Your task to perform on an android device: What is the recent news? Image 0: 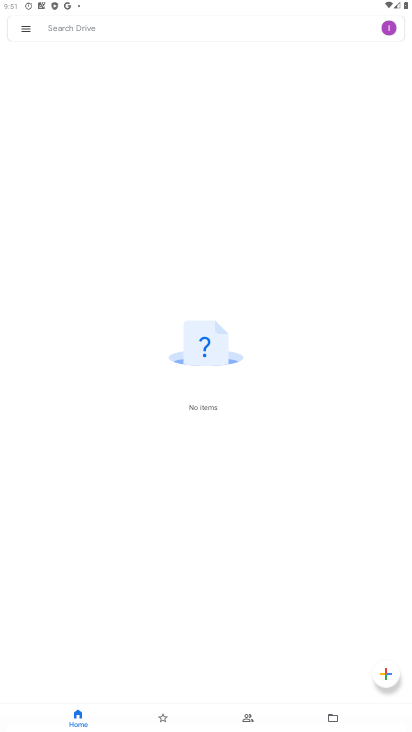
Step 0: drag from (285, 505) to (322, 340)
Your task to perform on an android device: What is the recent news? Image 1: 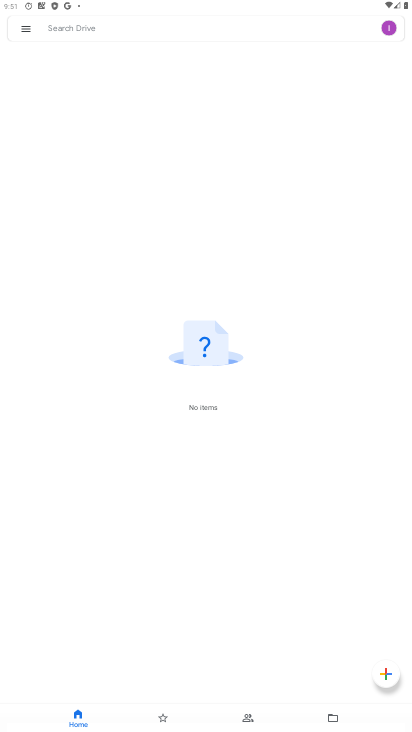
Step 1: click (246, 323)
Your task to perform on an android device: What is the recent news? Image 2: 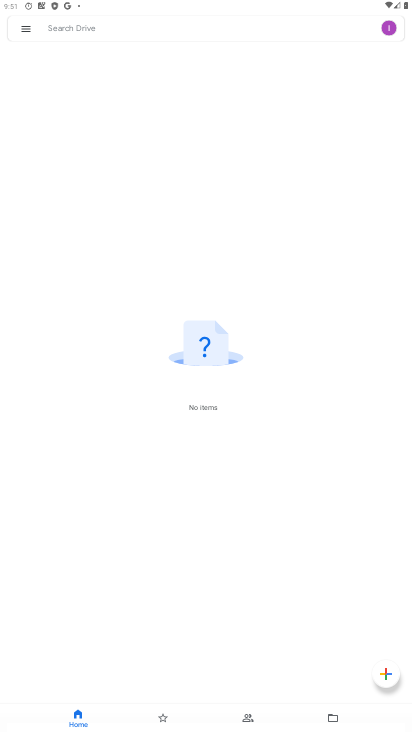
Step 2: press home button
Your task to perform on an android device: What is the recent news? Image 3: 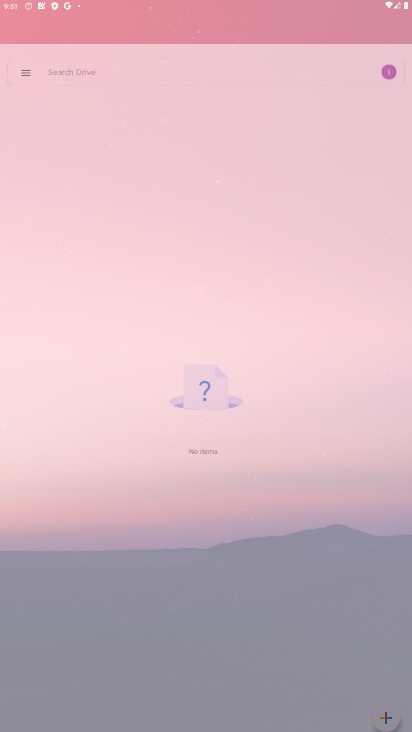
Step 3: drag from (245, 441) to (140, 56)
Your task to perform on an android device: What is the recent news? Image 4: 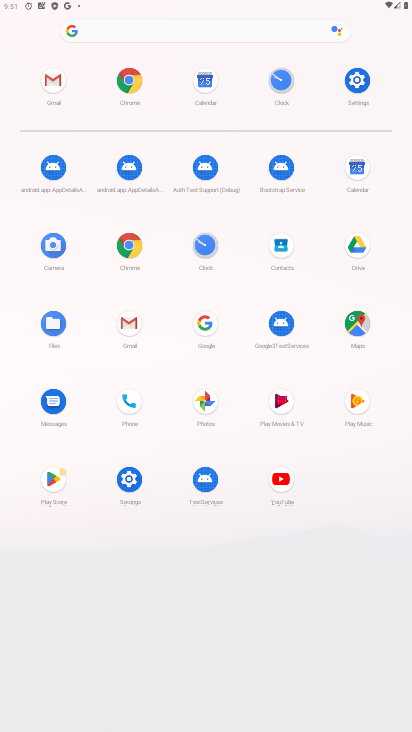
Step 4: drag from (189, 575) to (240, 306)
Your task to perform on an android device: What is the recent news? Image 5: 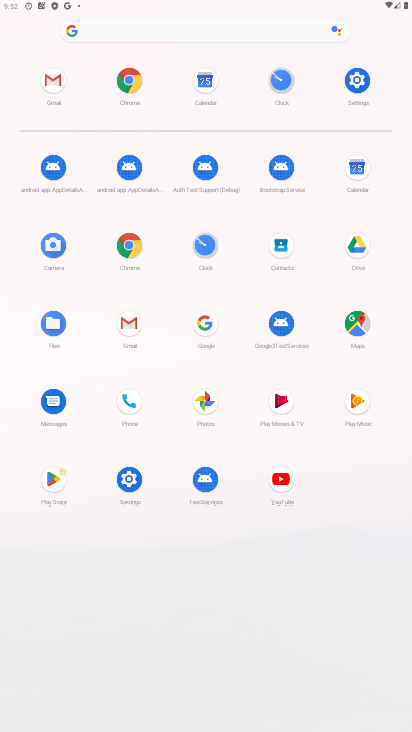
Step 5: click (157, 32)
Your task to perform on an android device: What is the recent news? Image 6: 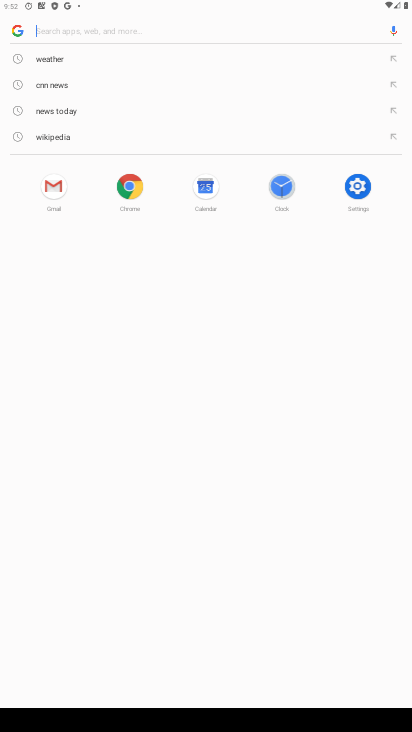
Step 6: type "recent news?"
Your task to perform on an android device: What is the recent news? Image 7: 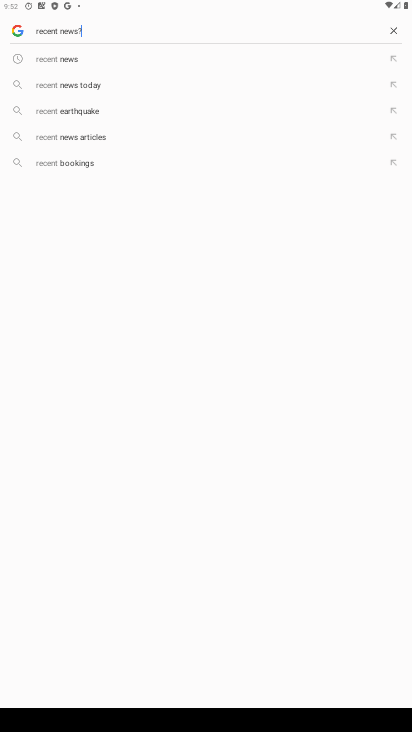
Step 7: type ""
Your task to perform on an android device: What is the recent news? Image 8: 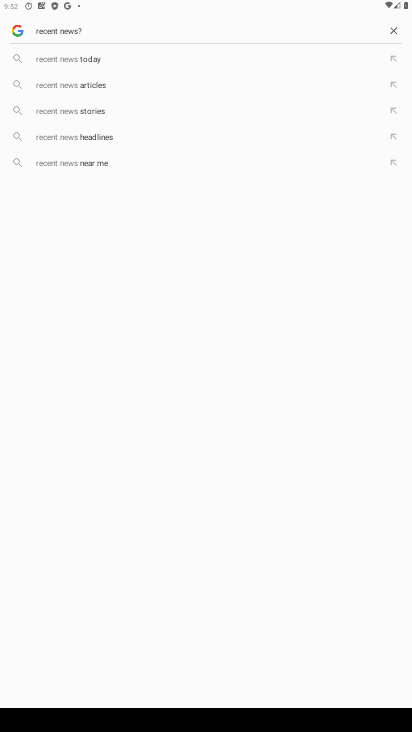
Step 8: click (78, 68)
Your task to perform on an android device: What is the recent news? Image 9: 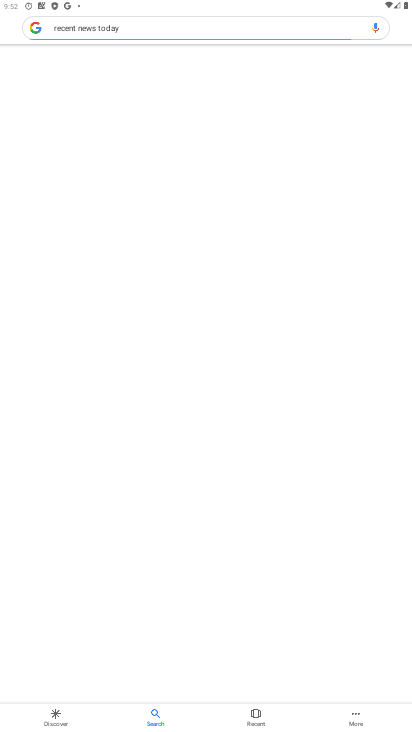
Step 9: task complete